Your task to perform on an android device: What's the weather going to be tomorrow? Image 0: 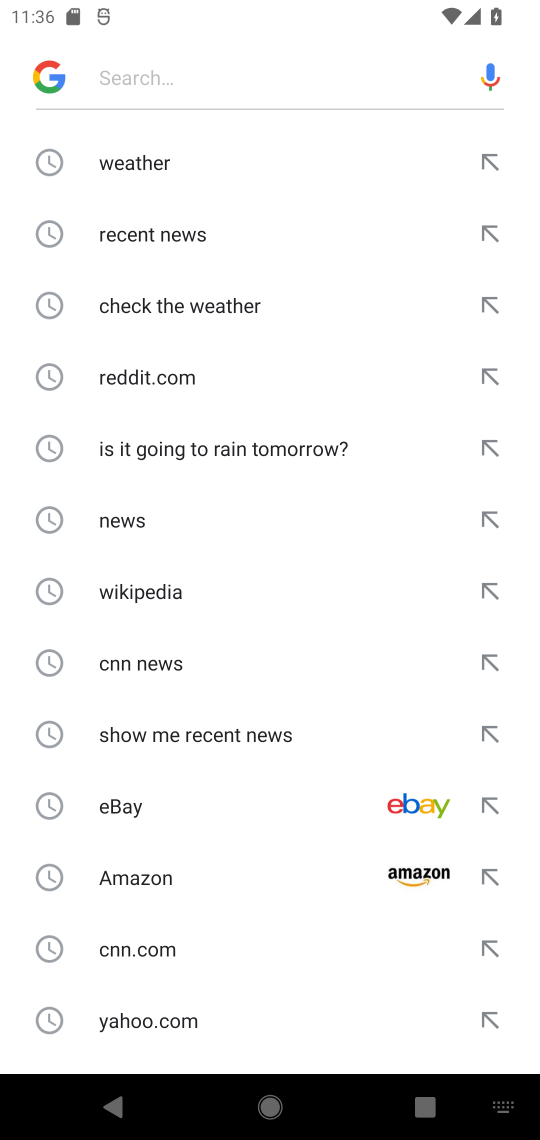
Step 0: press home button
Your task to perform on an android device: What's the weather going to be tomorrow? Image 1: 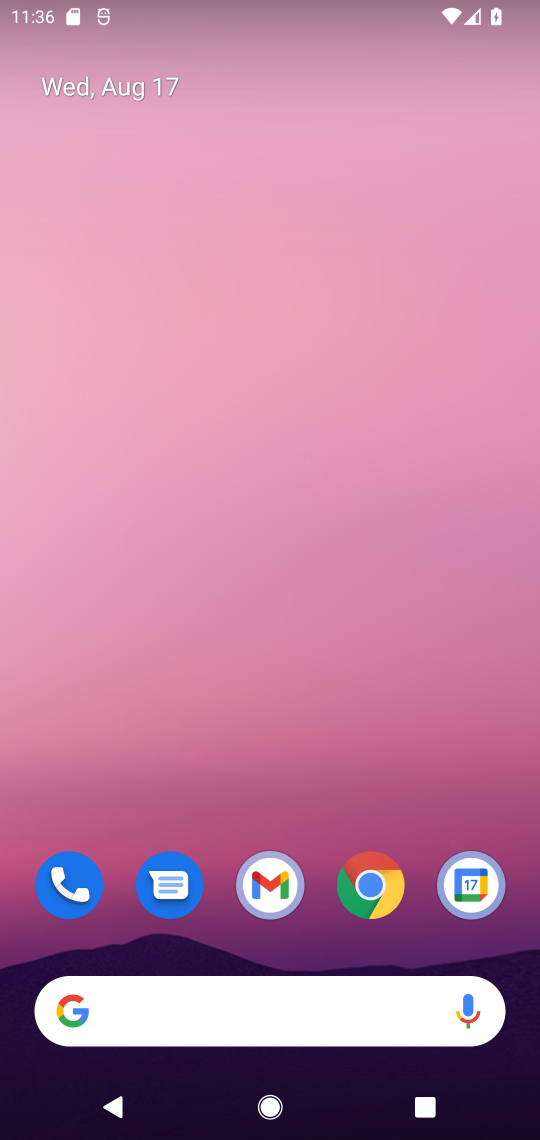
Step 1: drag from (406, 797) to (319, 242)
Your task to perform on an android device: What's the weather going to be tomorrow? Image 2: 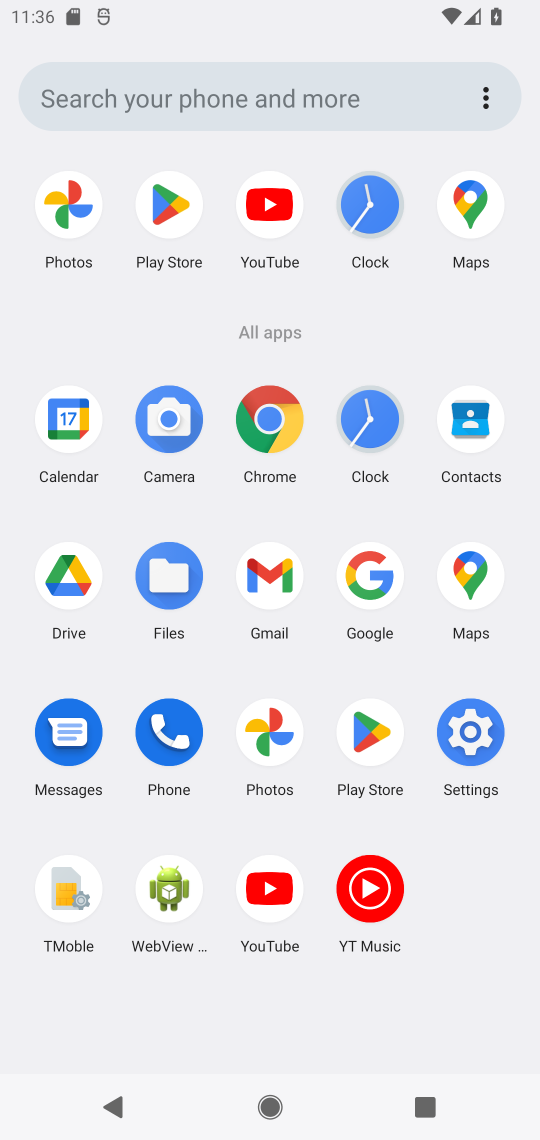
Step 2: click (369, 587)
Your task to perform on an android device: What's the weather going to be tomorrow? Image 3: 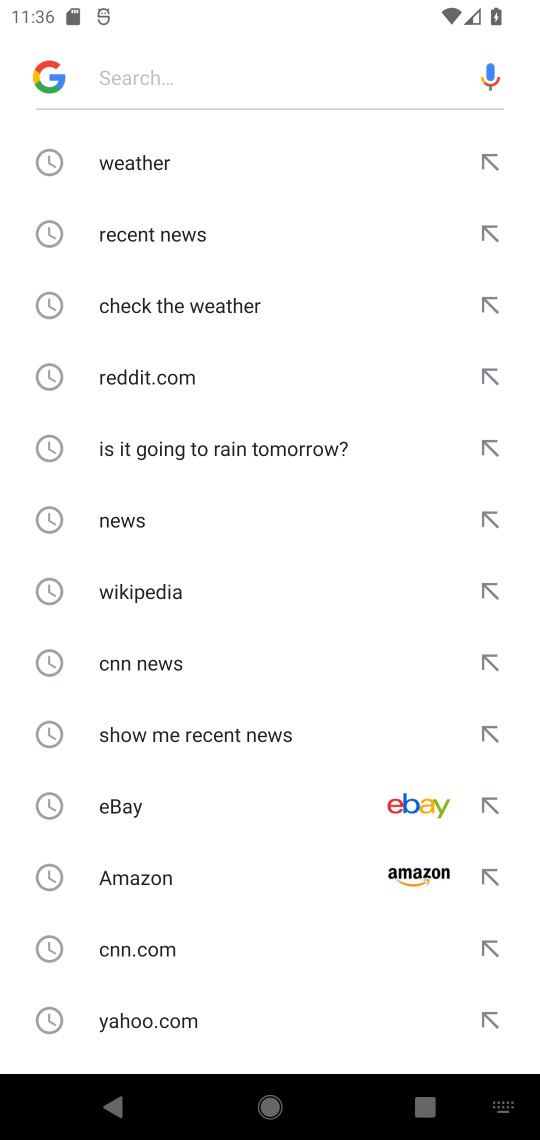
Step 3: click (166, 169)
Your task to perform on an android device: What's the weather going to be tomorrow? Image 4: 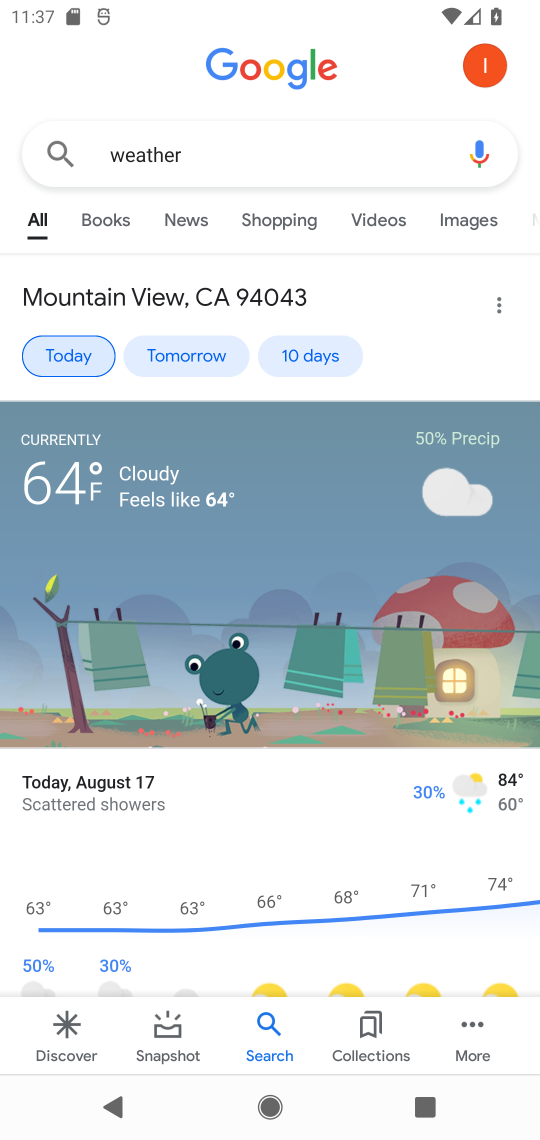
Step 4: click (198, 364)
Your task to perform on an android device: What's the weather going to be tomorrow? Image 5: 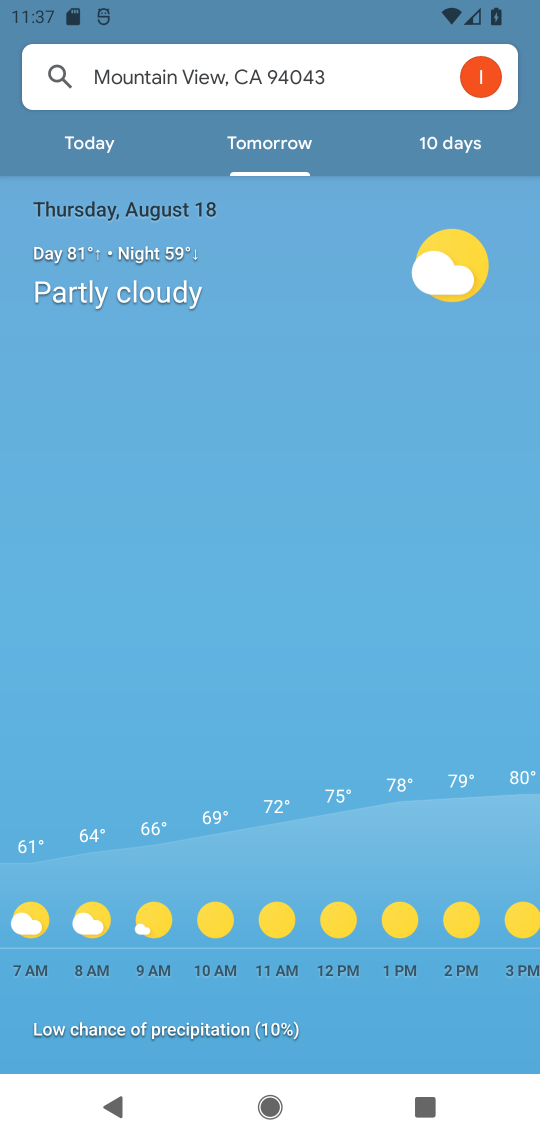
Step 5: task complete